Your task to perform on an android device: Go to Android settings Image 0: 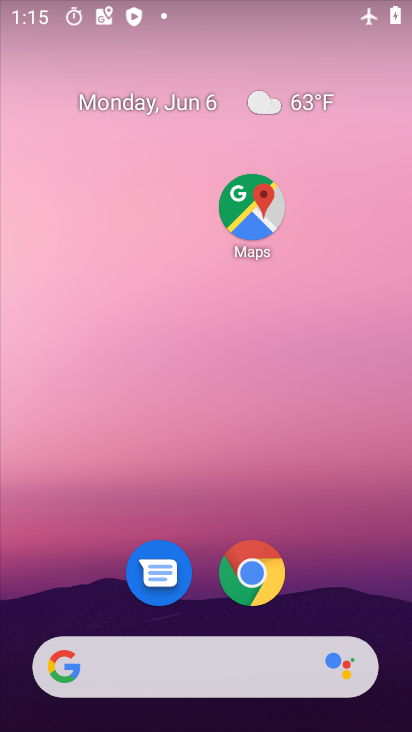
Step 0: drag from (215, 502) to (188, 3)
Your task to perform on an android device: Go to Android settings Image 1: 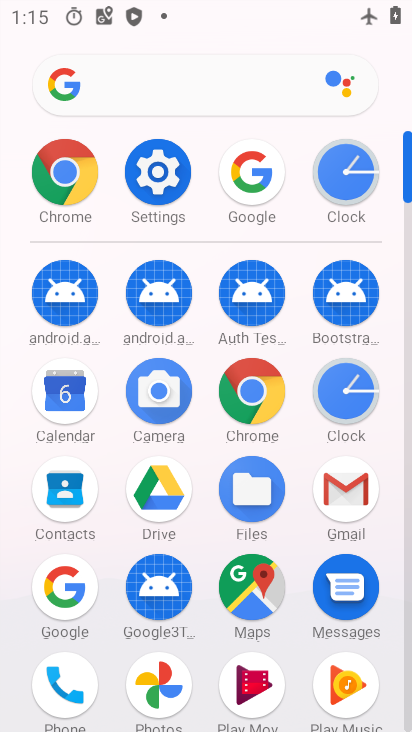
Step 1: drag from (208, 131) to (249, 33)
Your task to perform on an android device: Go to Android settings Image 2: 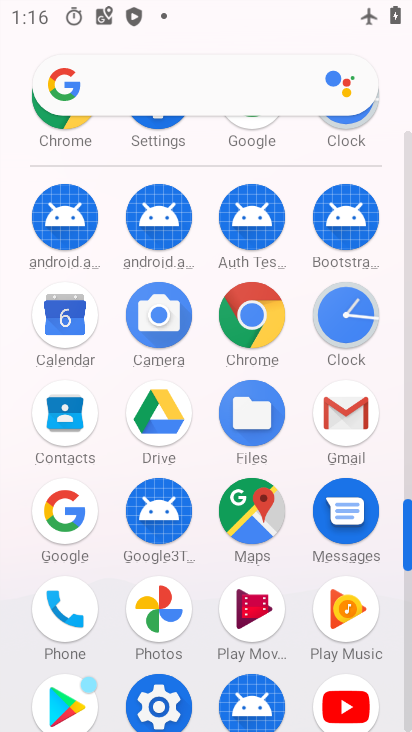
Step 2: click (164, 706)
Your task to perform on an android device: Go to Android settings Image 3: 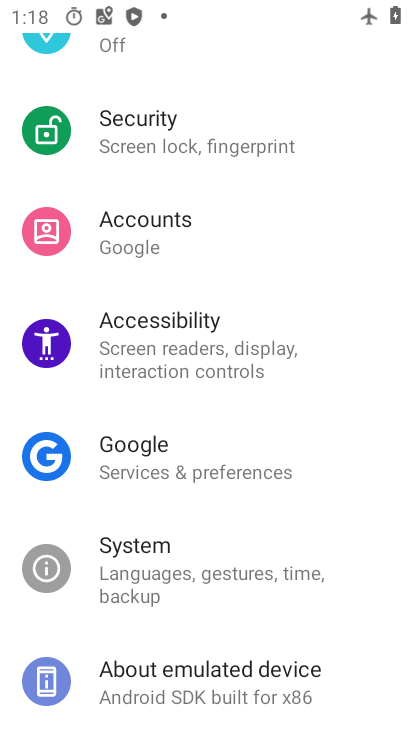
Step 3: task complete